Your task to perform on an android device: turn on the 24-hour format for clock Image 0: 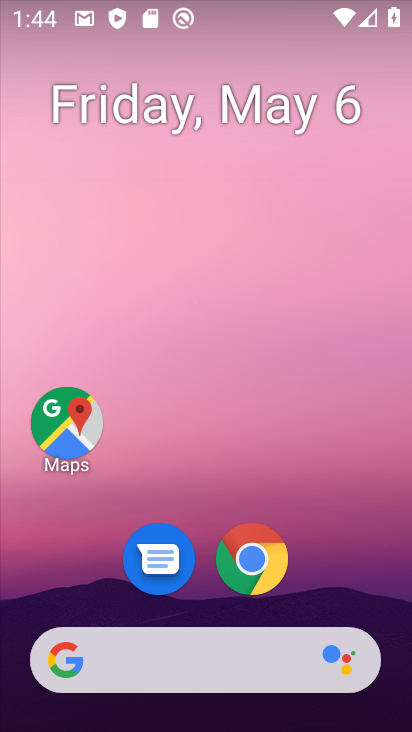
Step 0: drag from (358, 625) to (328, 7)
Your task to perform on an android device: turn on the 24-hour format for clock Image 1: 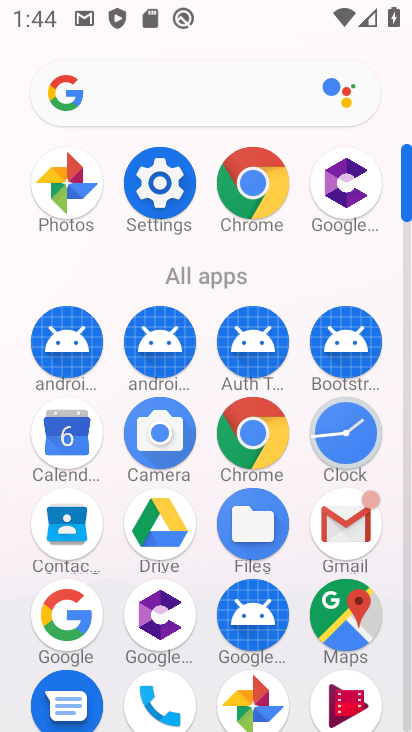
Step 1: click (344, 445)
Your task to perform on an android device: turn on the 24-hour format for clock Image 2: 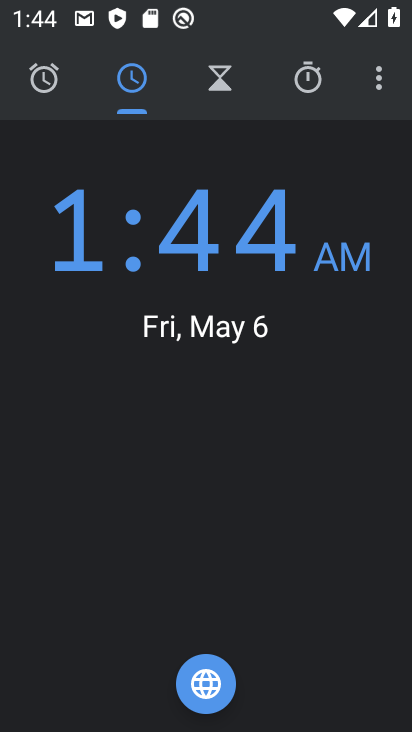
Step 2: click (376, 74)
Your task to perform on an android device: turn on the 24-hour format for clock Image 3: 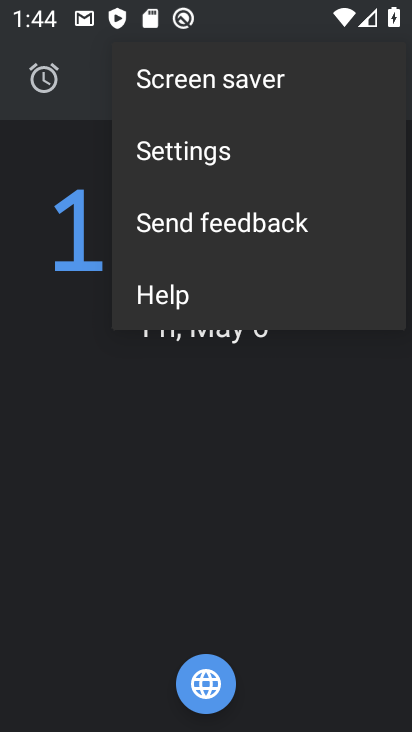
Step 3: click (249, 158)
Your task to perform on an android device: turn on the 24-hour format for clock Image 4: 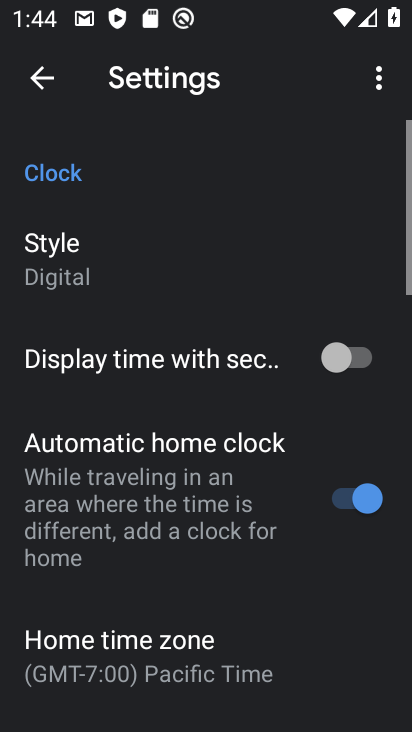
Step 4: drag from (220, 645) to (176, 145)
Your task to perform on an android device: turn on the 24-hour format for clock Image 5: 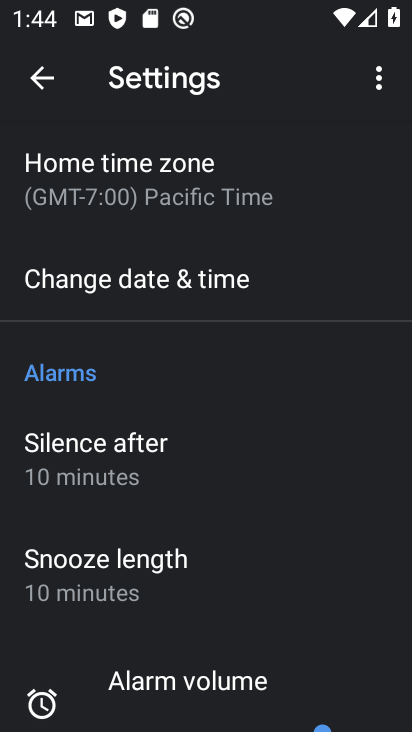
Step 5: drag from (218, 669) to (201, 536)
Your task to perform on an android device: turn on the 24-hour format for clock Image 6: 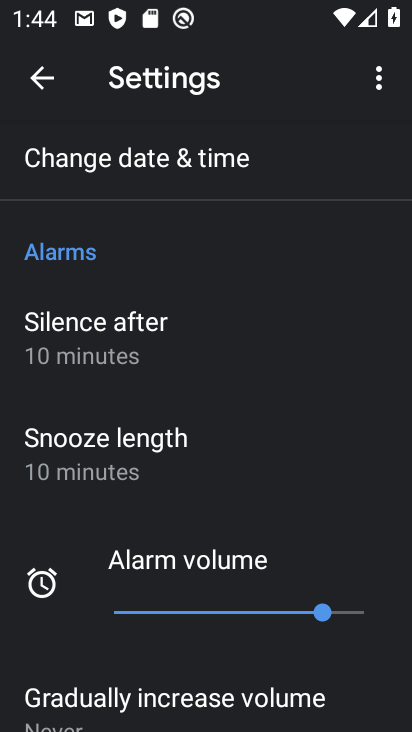
Step 6: click (235, 160)
Your task to perform on an android device: turn on the 24-hour format for clock Image 7: 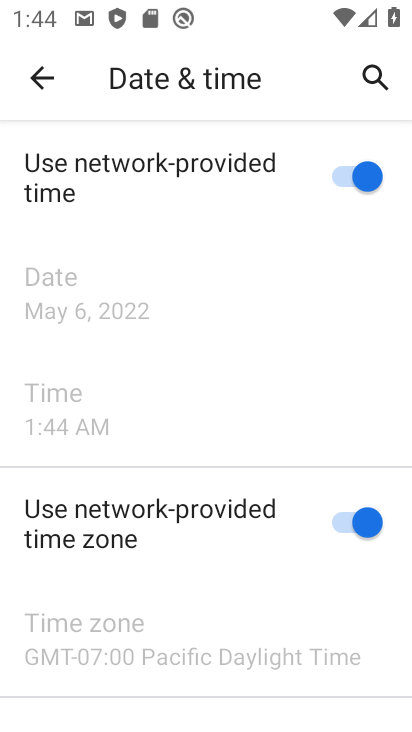
Step 7: drag from (280, 621) to (251, 105)
Your task to perform on an android device: turn on the 24-hour format for clock Image 8: 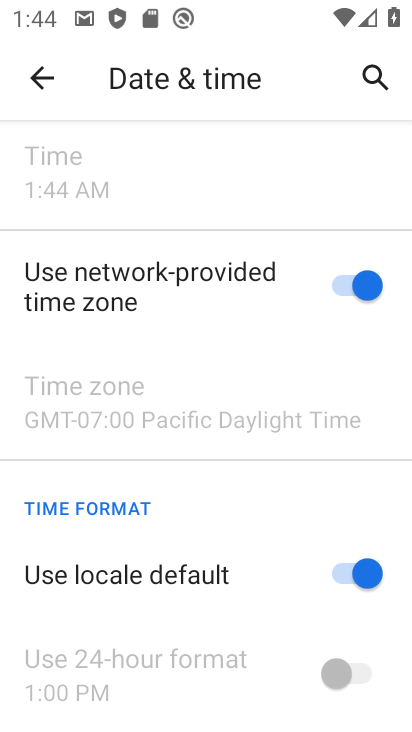
Step 8: click (350, 567)
Your task to perform on an android device: turn on the 24-hour format for clock Image 9: 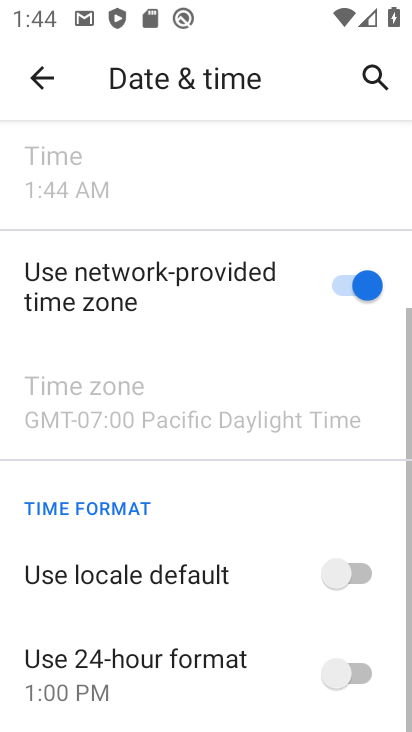
Step 9: click (355, 670)
Your task to perform on an android device: turn on the 24-hour format for clock Image 10: 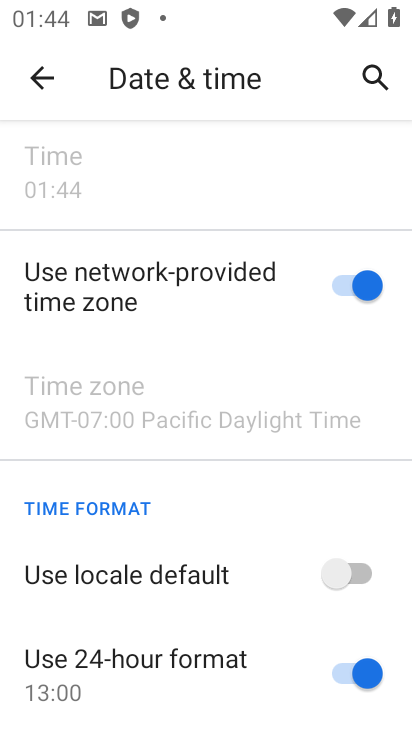
Step 10: task complete